Your task to perform on an android device: create a new album in the google photos Image 0: 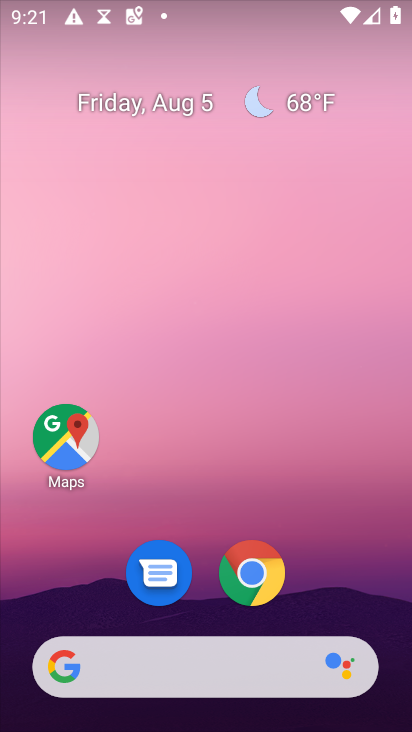
Step 0: drag from (191, 672) to (225, 97)
Your task to perform on an android device: create a new album in the google photos Image 1: 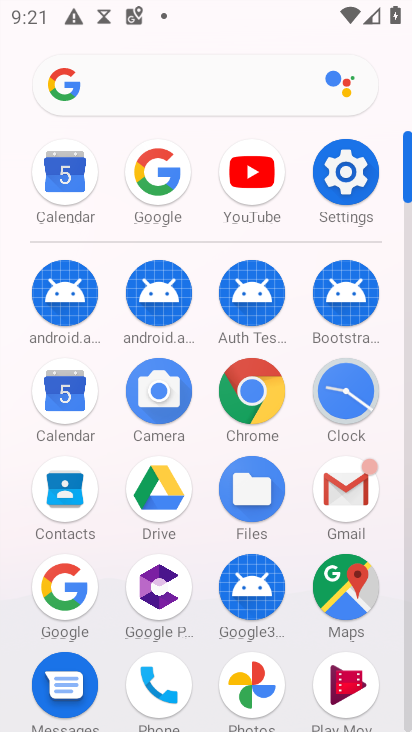
Step 1: drag from (202, 563) to (206, 344)
Your task to perform on an android device: create a new album in the google photos Image 2: 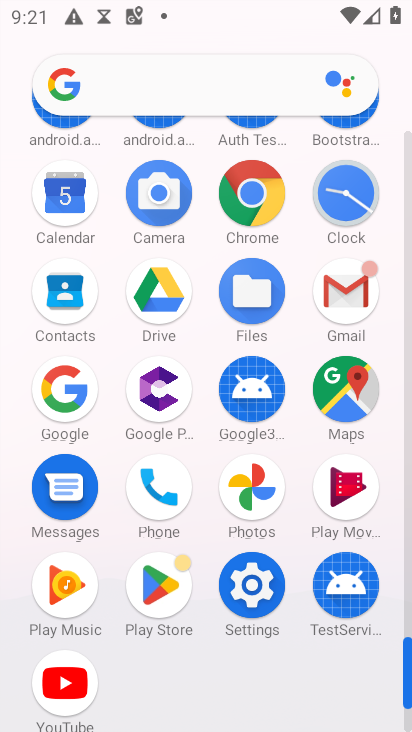
Step 2: click (249, 483)
Your task to perform on an android device: create a new album in the google photos Image 3: 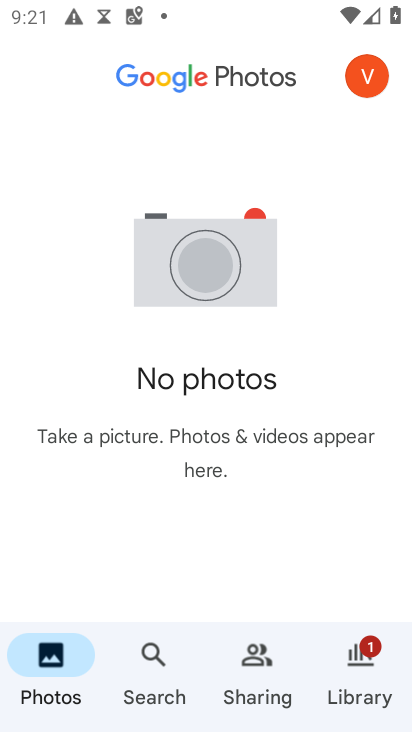
Step 3: click (360, 664)
Your task to perform on an android device: create a new album in the google photos Image 4: 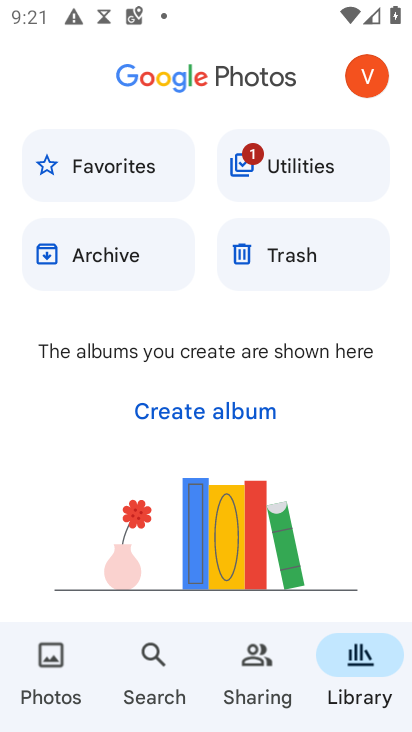
Step 4: click (244, 416)
Your task to perform on an android device: create a new album in the google photos Image 5: 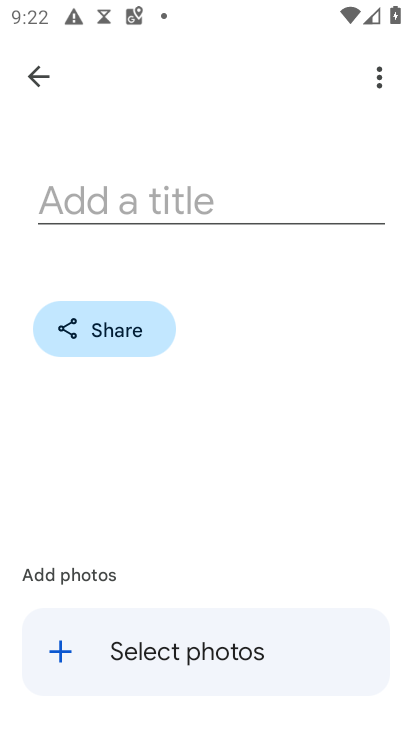
Step 5: click (262, 206)
Your task to perform on an android device: create a new album in the google photos Image 6: 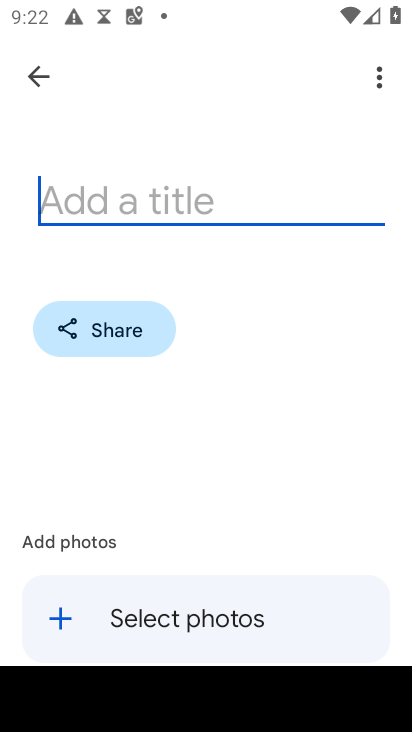
Step 6: type "gli"
Your task to perform on an android device: create a new album in the google photos Image 7: 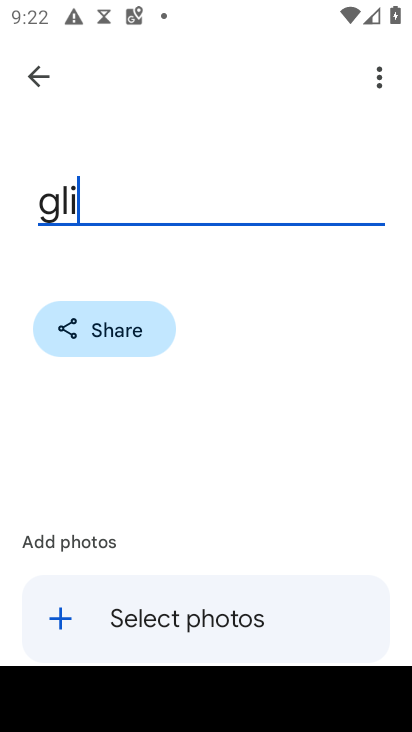
Step 7: click (148, 622)
Your task to perform on an android device: create a new album in the google photos Image 8: 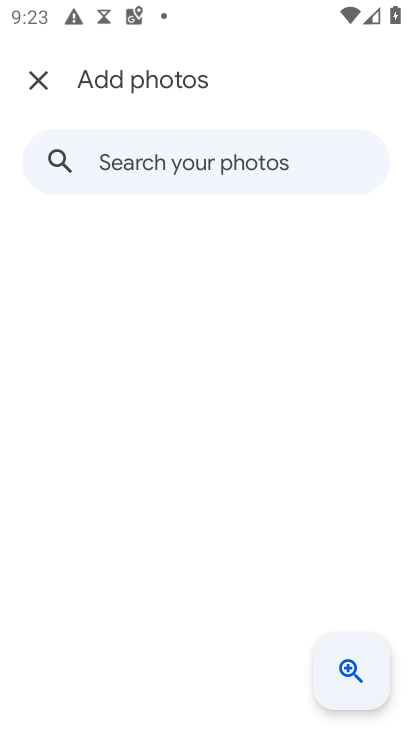
Step 8: click (147, 159)
Your task to perform on an android device: create a new album in the google photos Image 9: 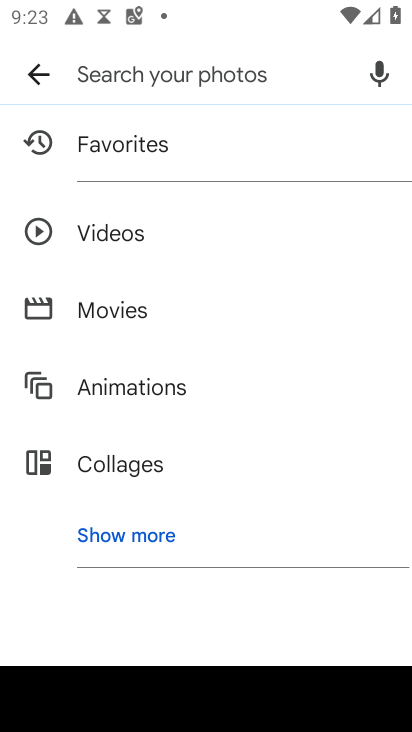
Step 9: click (98, 224)
Your task to perform on an android device: create a new album in the google photos Image 10: 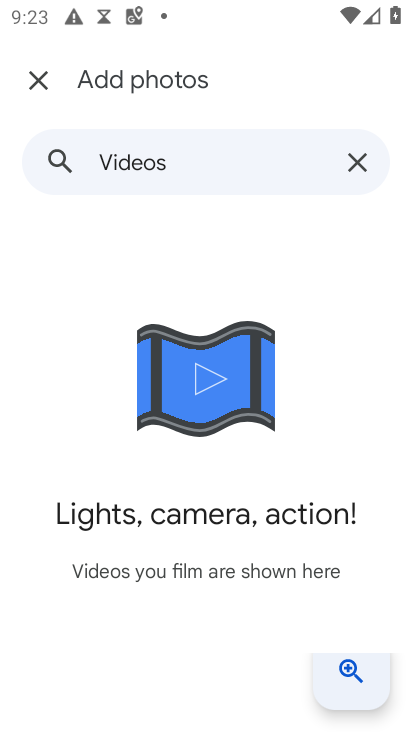
Step 10: click (357, 678)
Your task to perform on an android device: create a new album in the google photos Image 11: 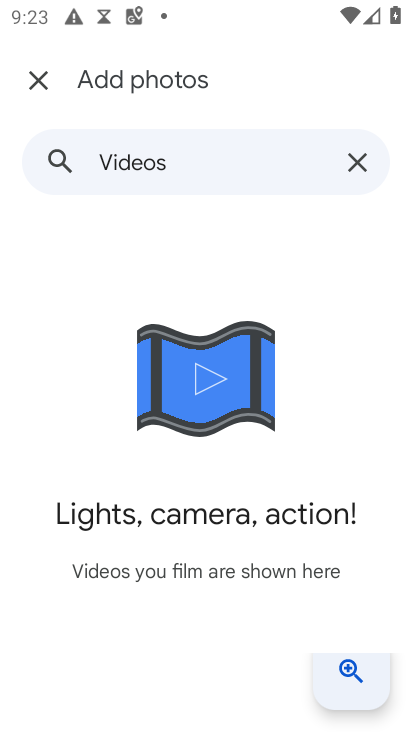
Step 11: click (352, 158)
Your task to perform on an android device: create a new album in the google photos Image 12: 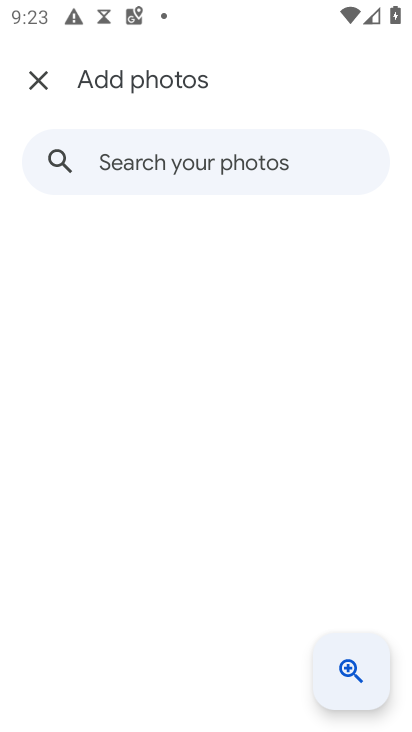
Step 12: click (314, 181)
Your task to perform on an android device: create a new album in the google photos Image 13: 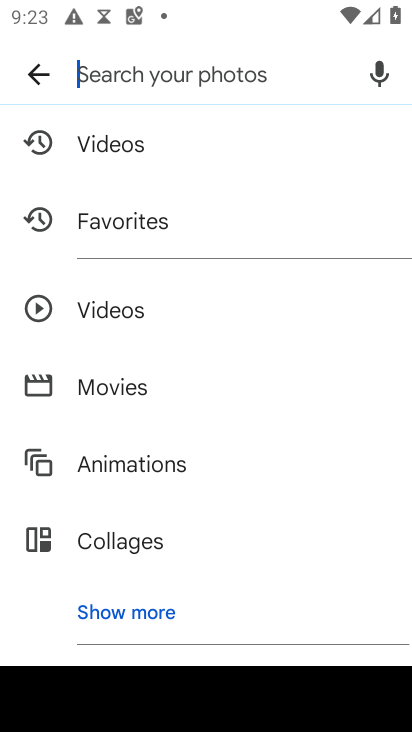
Step 13: click (109, 475)
Your task to perform on an android device: create a new album in the google photos Image 14: 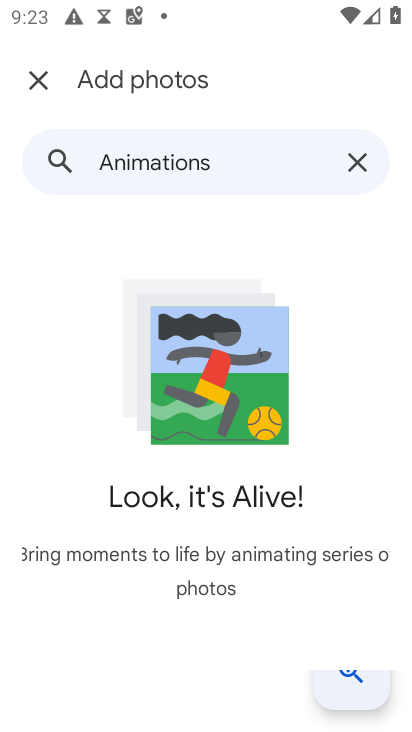
Step 14: click (225, 417)
Your task to perform on an android device: create a new album in the google photos Image 15: 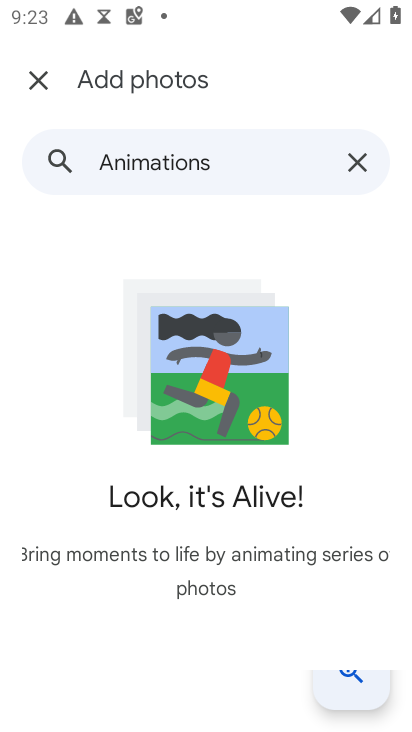
Step 15: task complete